Your task to perform on an android device: star an email in the gmail app Image 0: 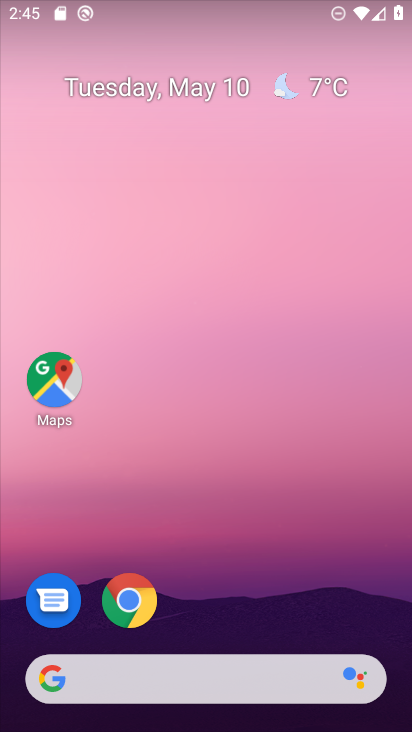
Step 0: drag from (232, 678) to (146, 102)
Your task to perform on an android device: star an email in the gmail app Image 1: 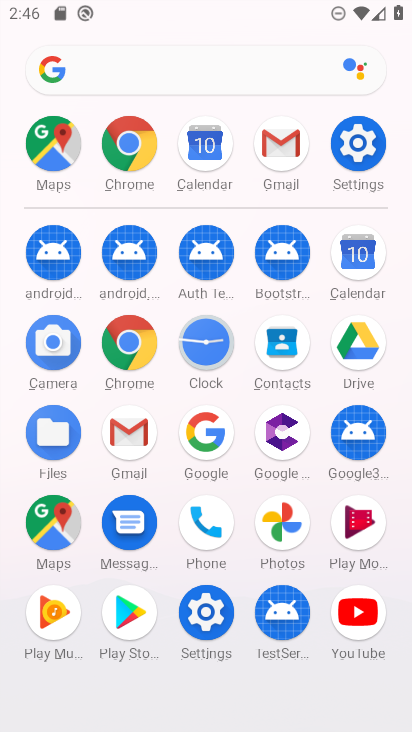
Step 1: click (131, 424)
Your task to perform on an android device: star an email in the gmail app Image 2: 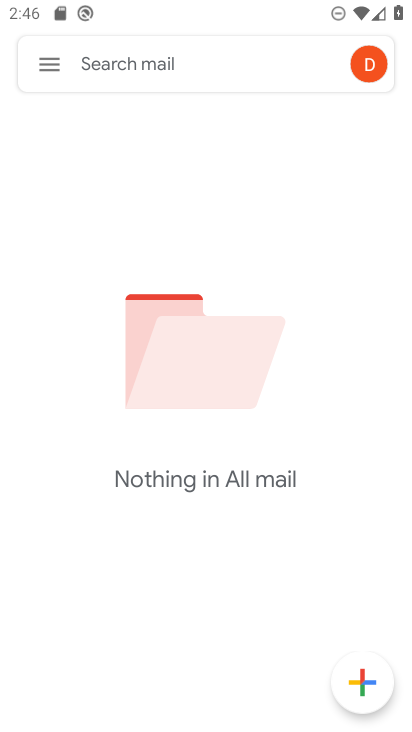
Step 2: click (57, 66)
Your task to perform on an android device: star an email in the gmail app Image 3: 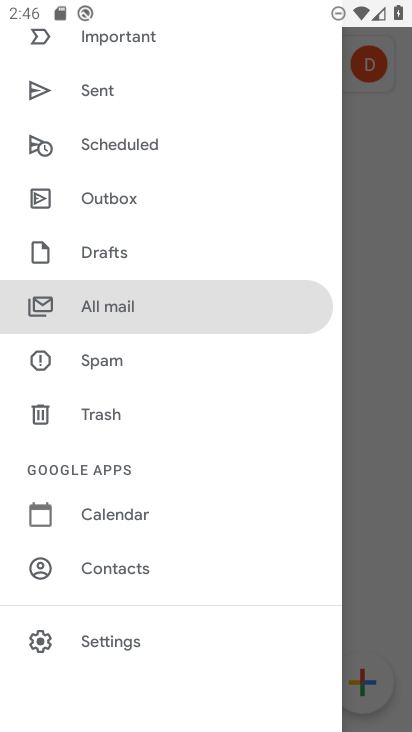
Step 3: click (115, 305)
Your task to perform on an android device: star an email in the gmail app Image 4: 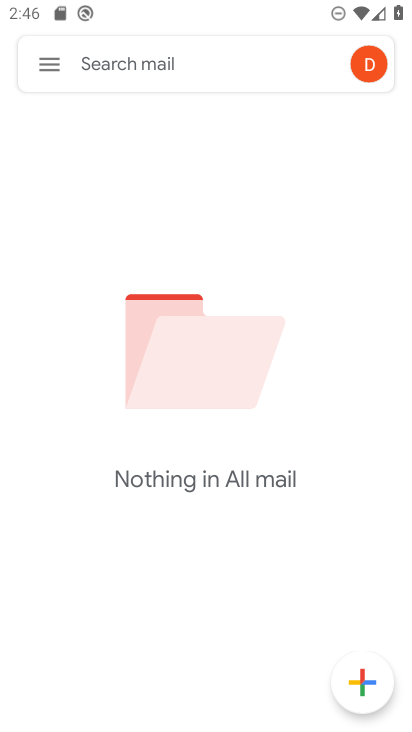
Step 4: task complete